Your task to perform on an android device: Go to privacy settings Image 0: 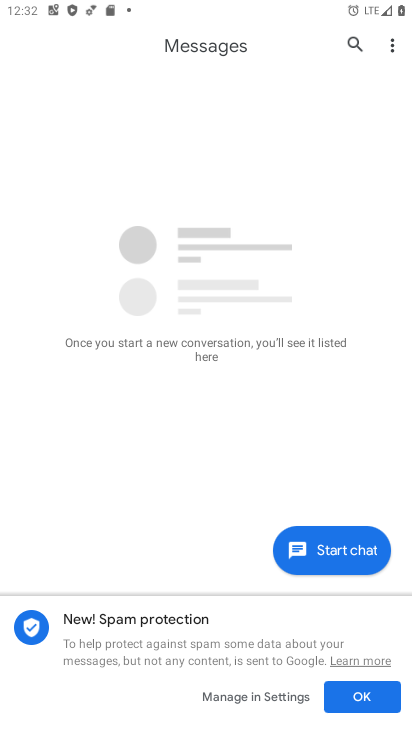
Step 0: press home button
Your task to perform on an android device: Go to privacy settings Image 1: 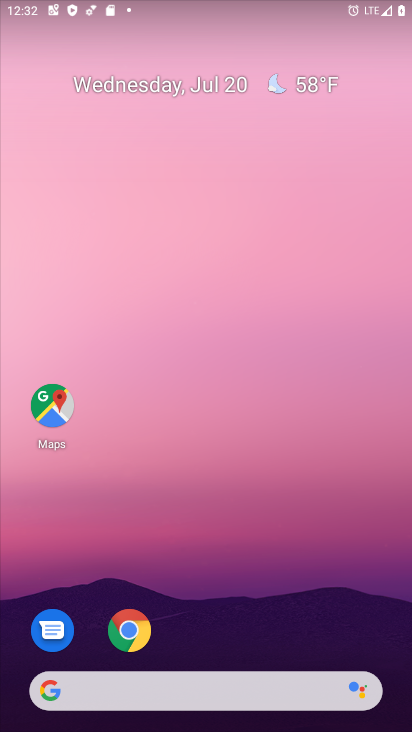
Step 1: drag from (300, 659) to (312, 223)
Your task to perform on an android device: Go to privacy settings Image 2: 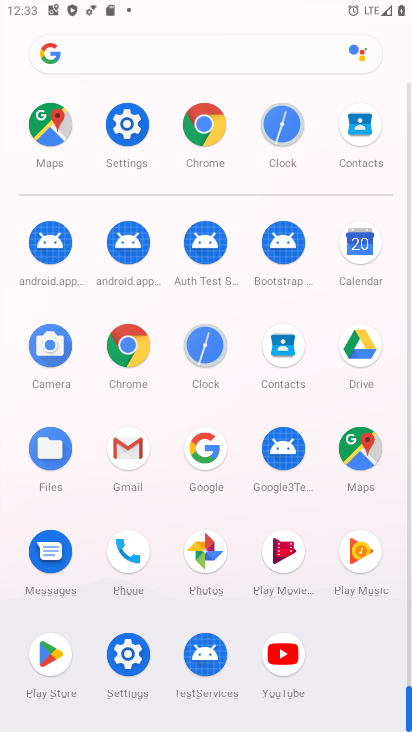
Step 2: click (122, 130)
Your task to perform on an android device: Go to privacy settings Image 3: 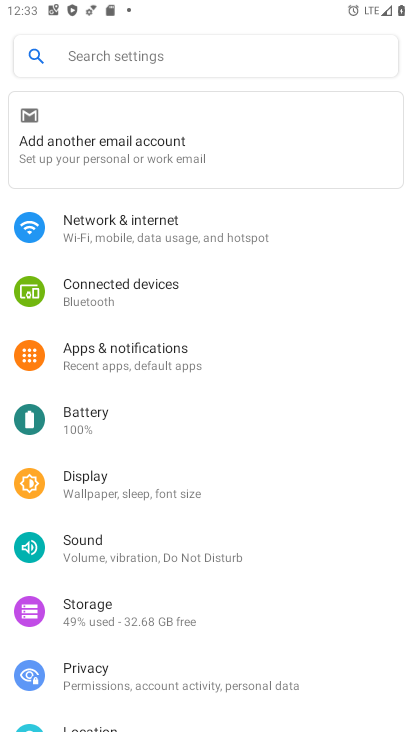
Step 3: drag from (145, 541) to (221, 301)
Your task to perform on an android device: Go to privacy settings Image 4: 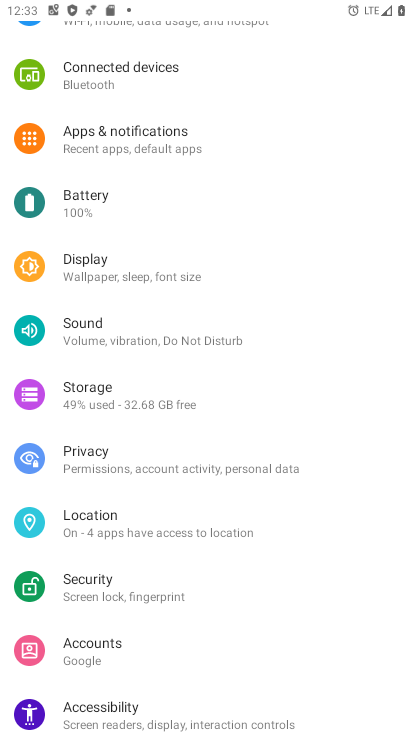
Step 4: click (175, 468)
Your task to perform on an android device: Go to privacy settings Image 5: 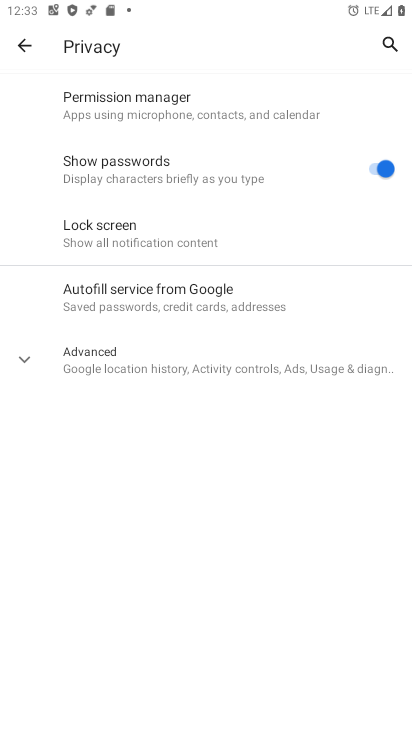
Step 5: task complete